Your task to perform on an android device: Add asus zenbook to the cart on newegg Image 0: 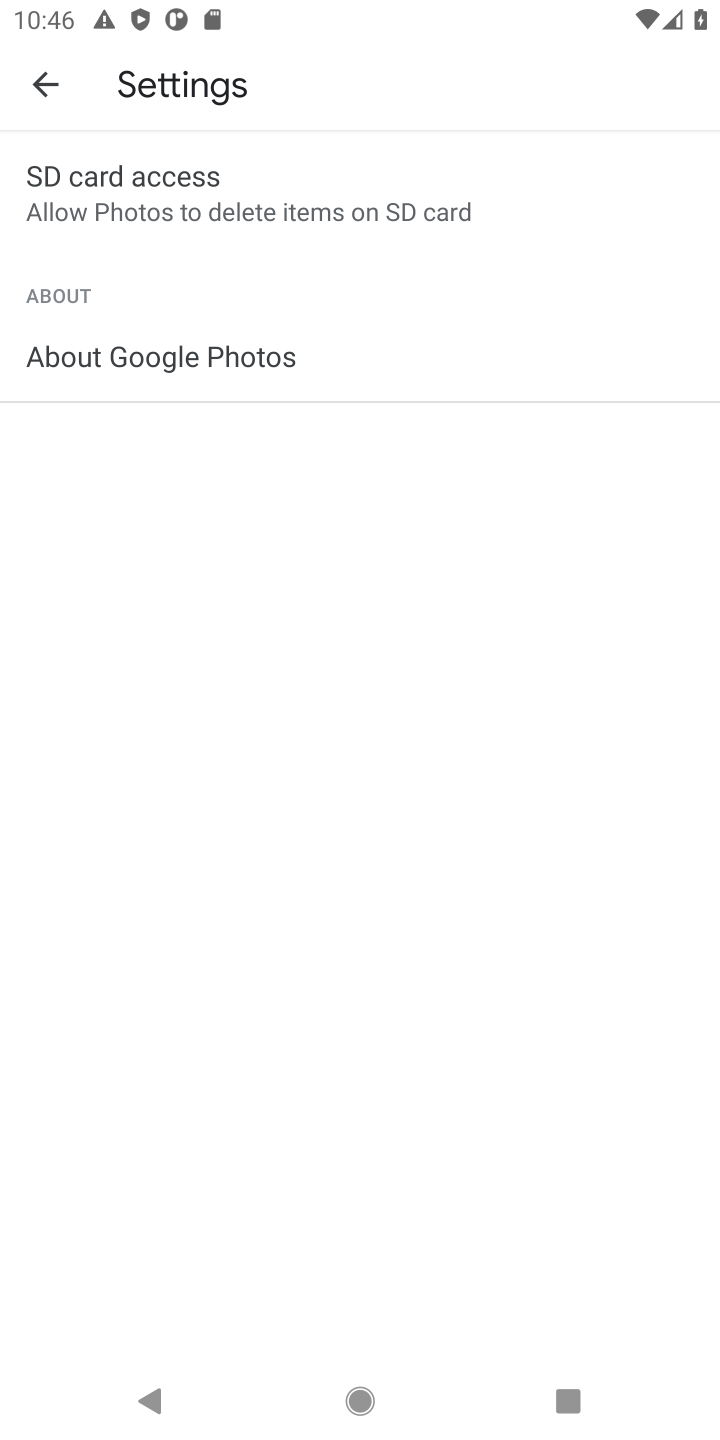
Step 0: press home button
Your task to perform on an android device: Add asus zenbook to the cart on newegg Image 1: 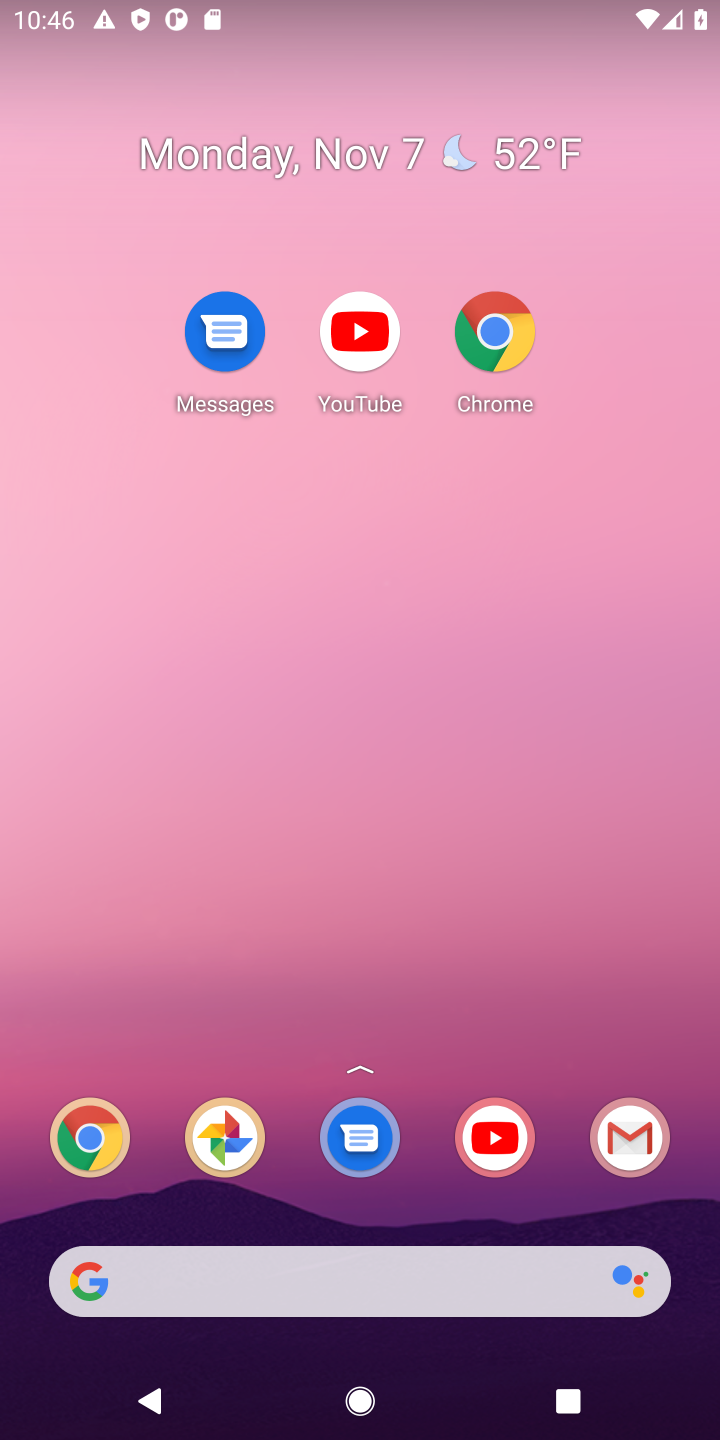
Step 1: drag from (417, 1132) to (372, 108)
Your task to perform on an android device: Add asus zenbook to the cart on newegg Image 2: 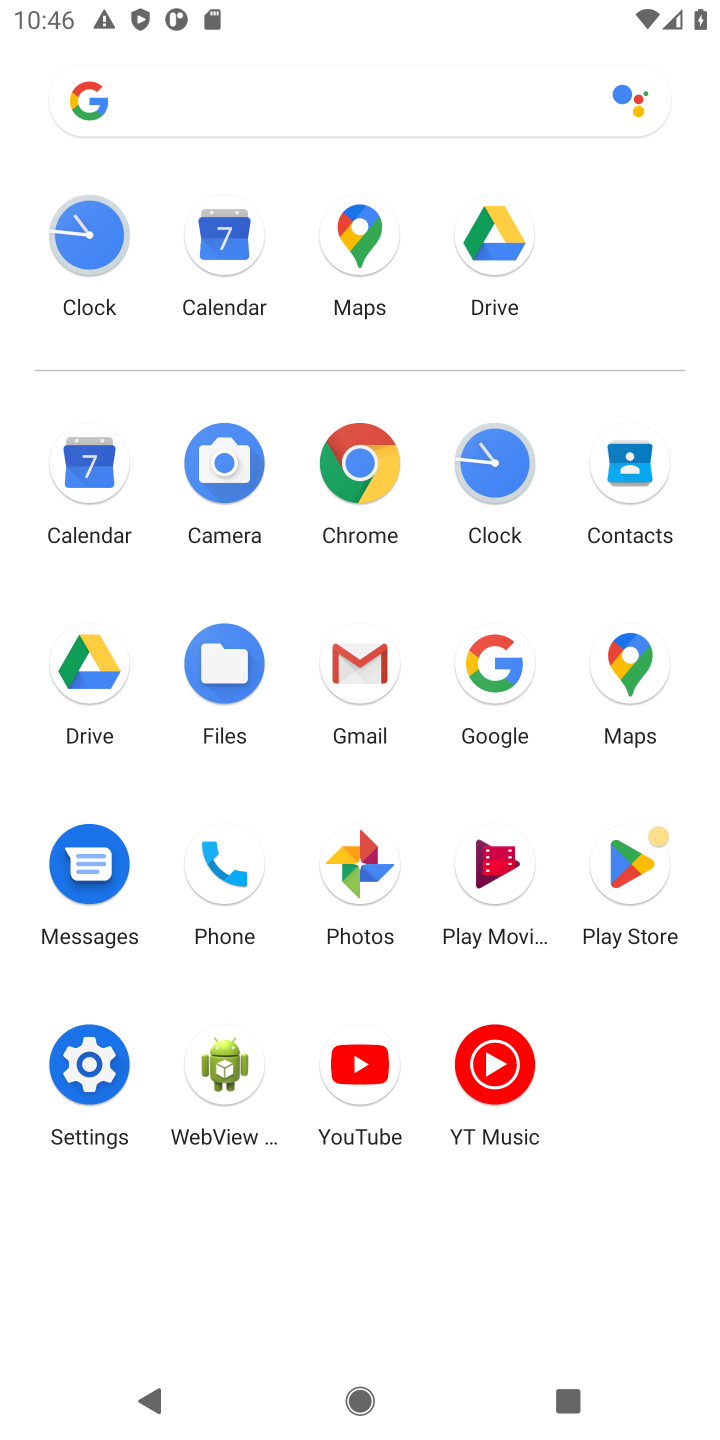
Step 2: click (372, 466)
Your task to perform on an android device: Add asus zenbook to the cart on newegg Image 3: 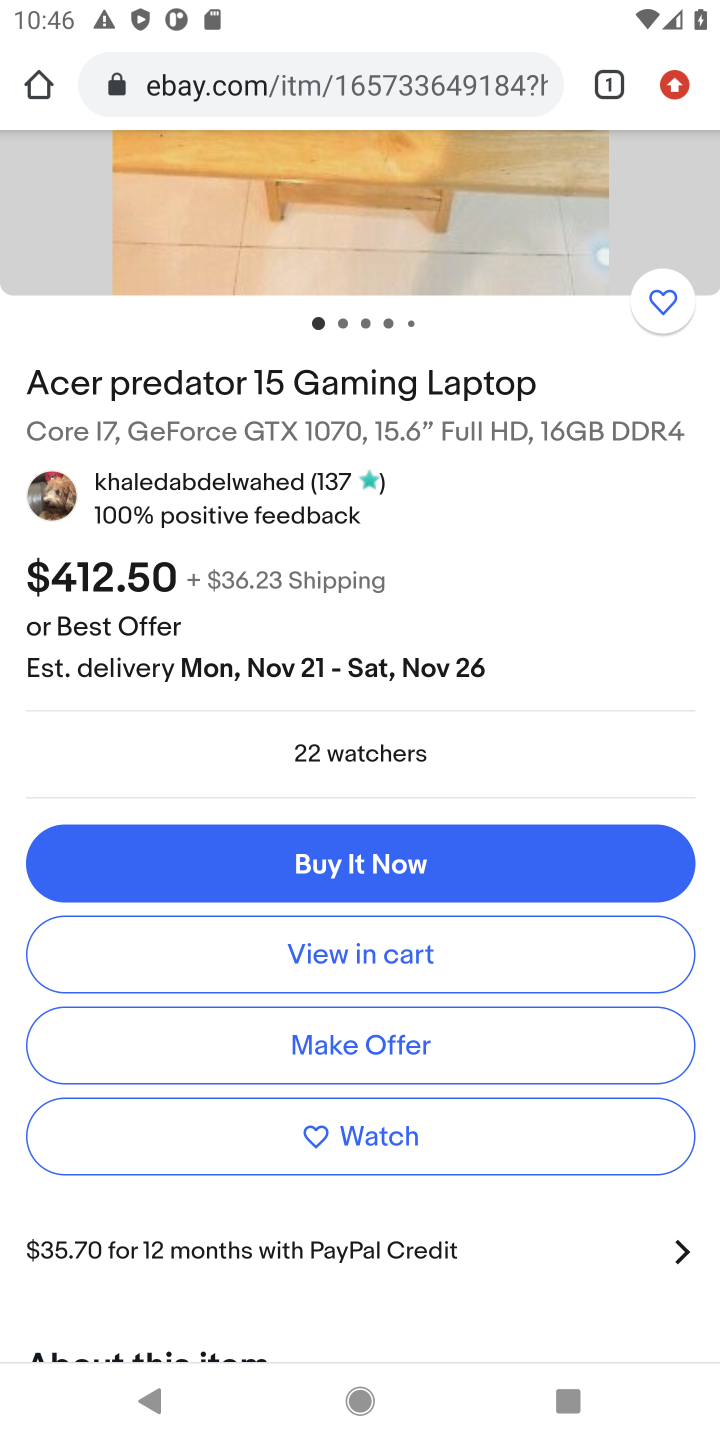
Step 3: click (357, 74)
Your task to perform on an android device: Add asus zenbook to the cart on newegg Image 4: 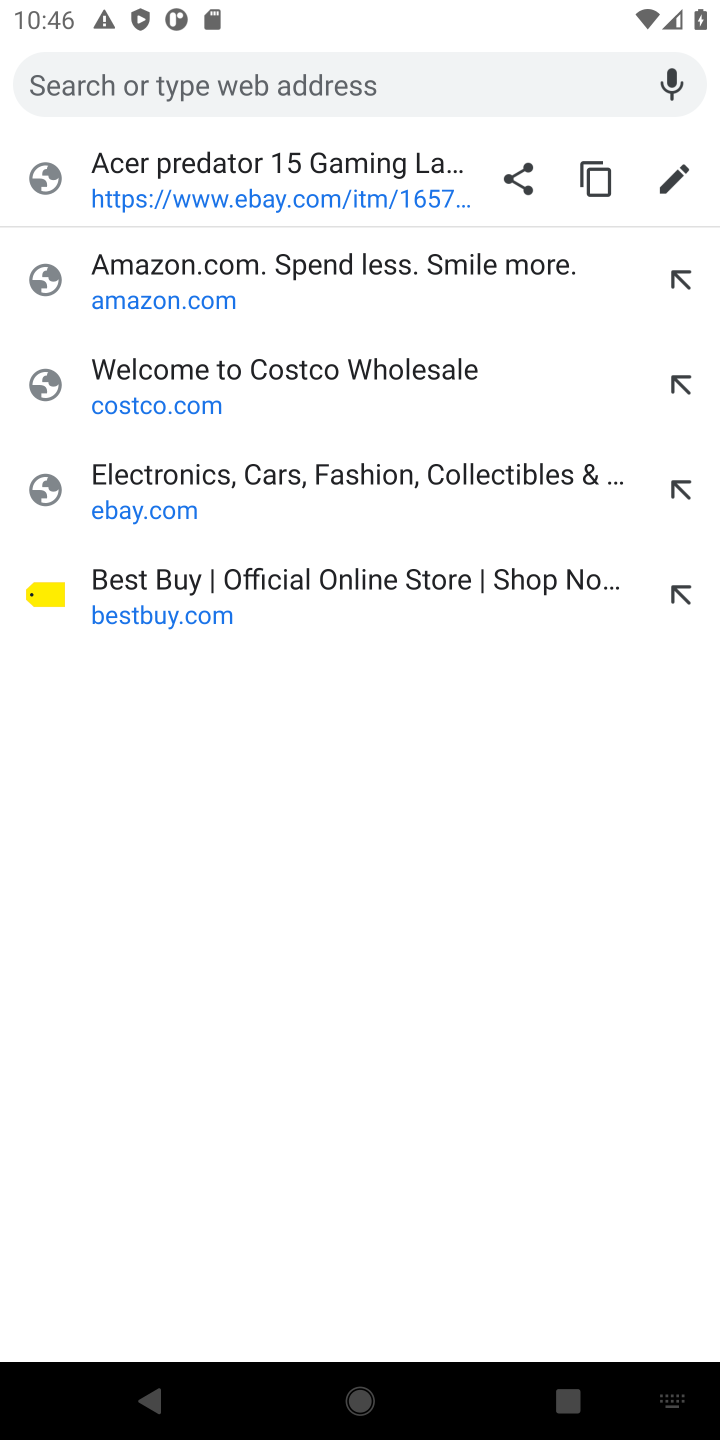
Step 4: type "newegg.com"
Your task to perform on an android device: Add asus zenbook to the cart on newegg Image 5: 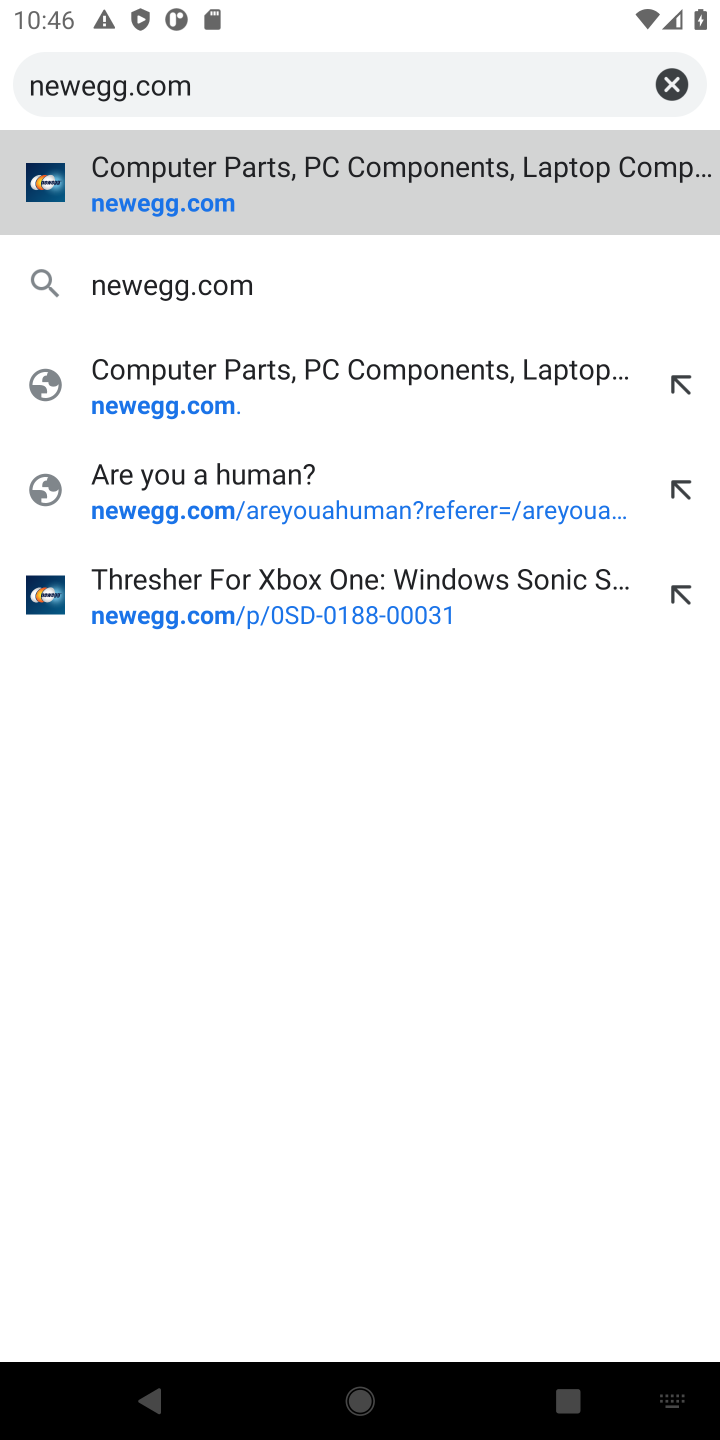
Step 5: press enter
Your task to perform on an android device: Add asus zenbook to the cart on newegg Image 6: 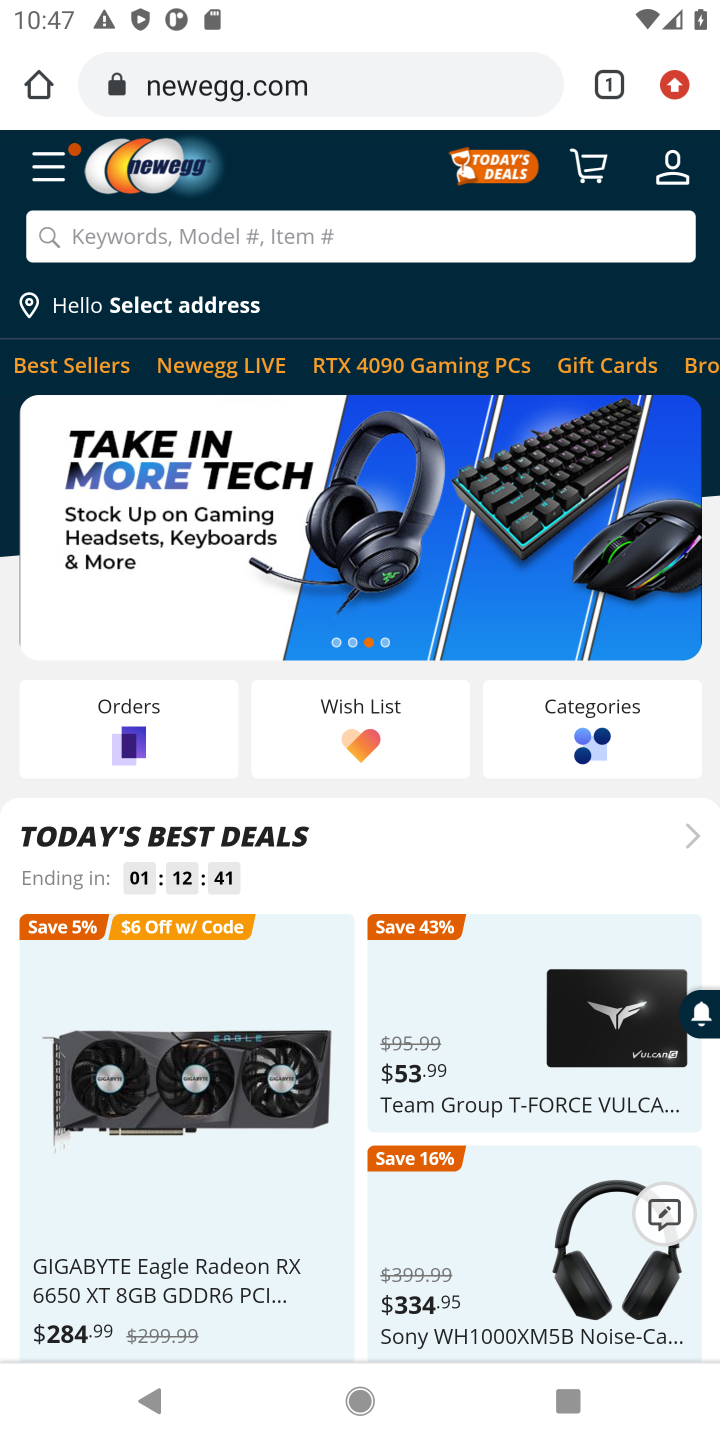
Step 6: click (369, 242)
Your task to perform on an android device: Add asus zenbook to the cart on newegg Image 7: 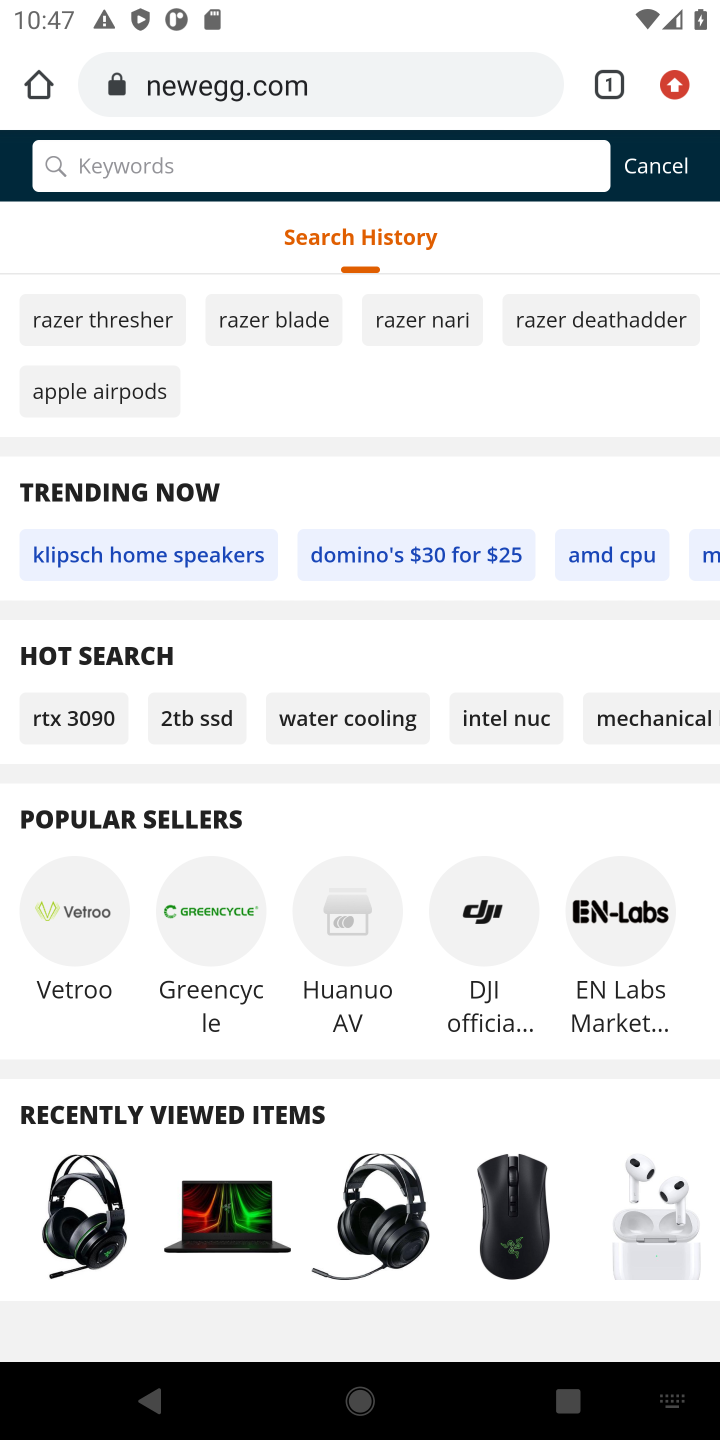
Step 7: type "asus zenbook"
Your task to perform on an android device: Add asus zenbook to the cart on newegg Image 8: 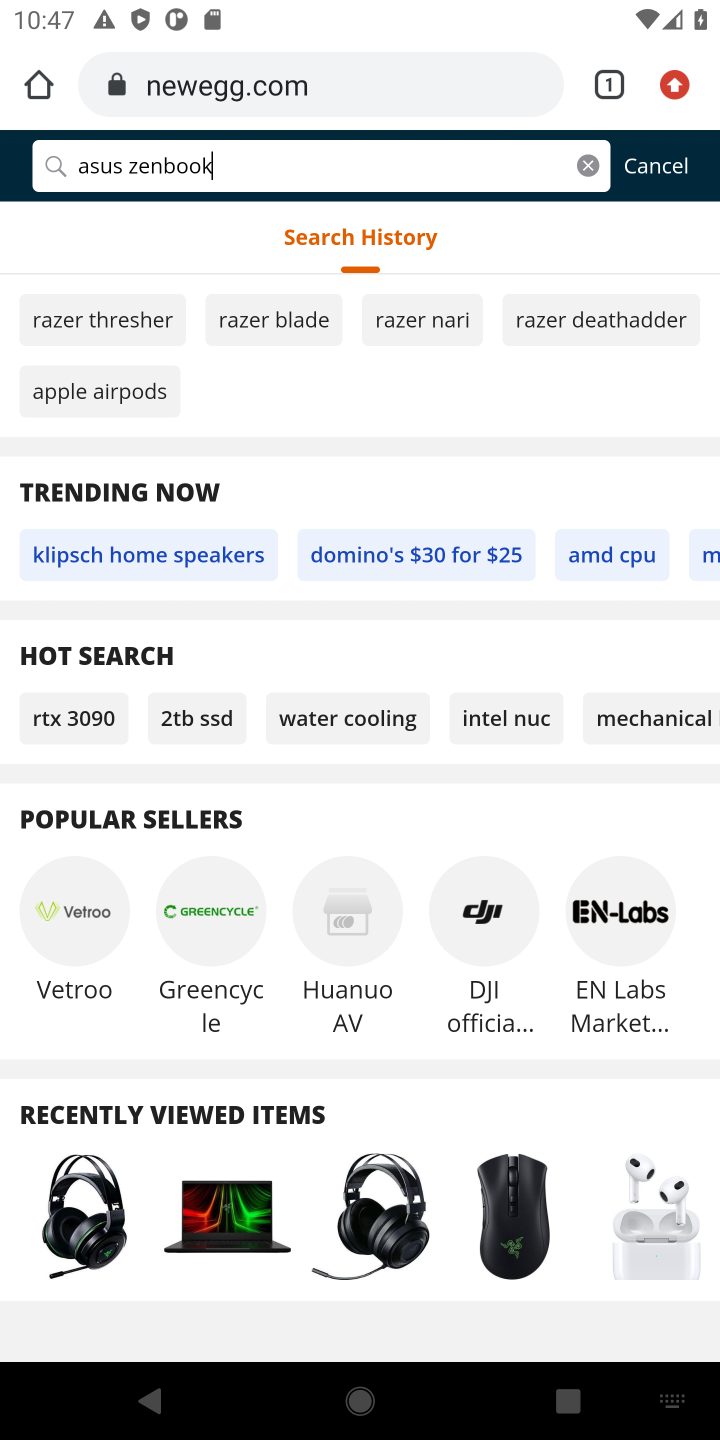
Step 8: press enter
Your task to perform on an android device: Add asus zenbook to the cart on newegg Image 9: 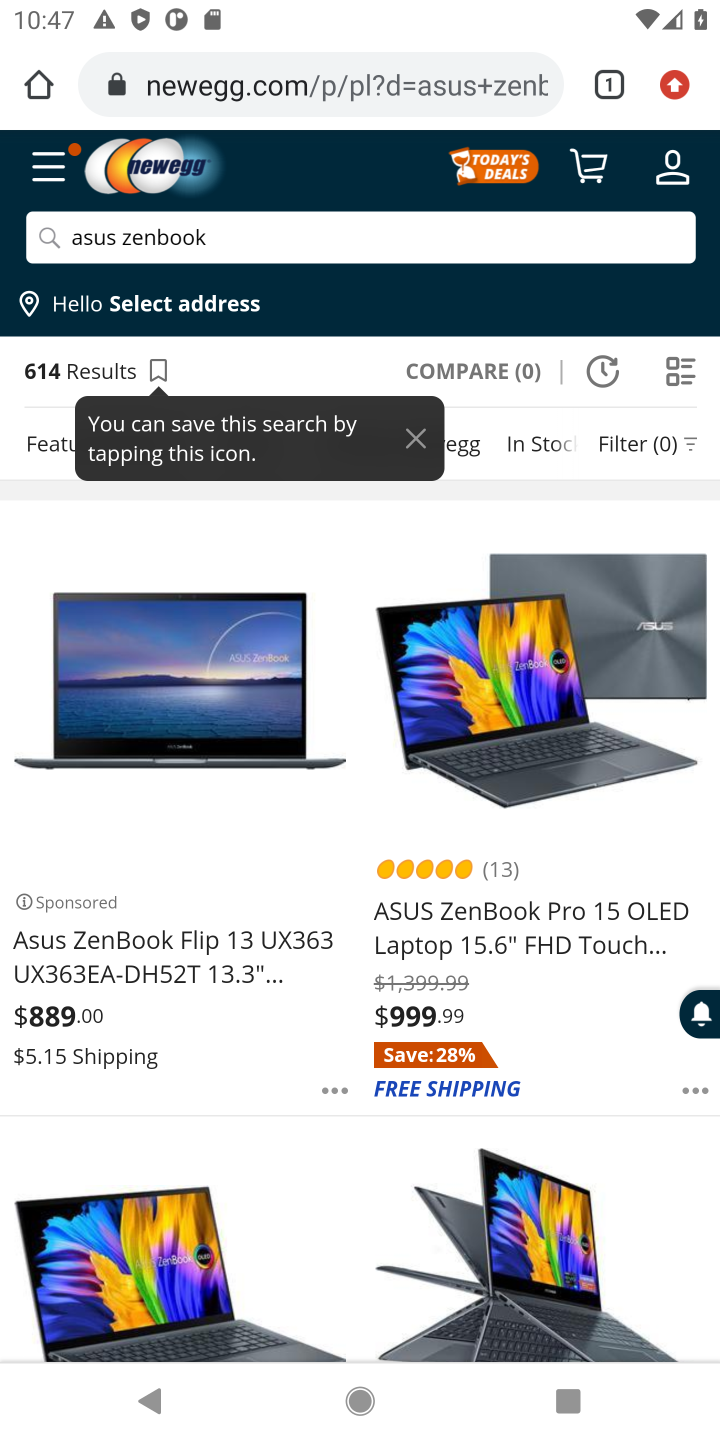
Step 9: click (500, 918)
Your task to perform on an android device: Add asus zenbook to the cart on newegg Image 10: 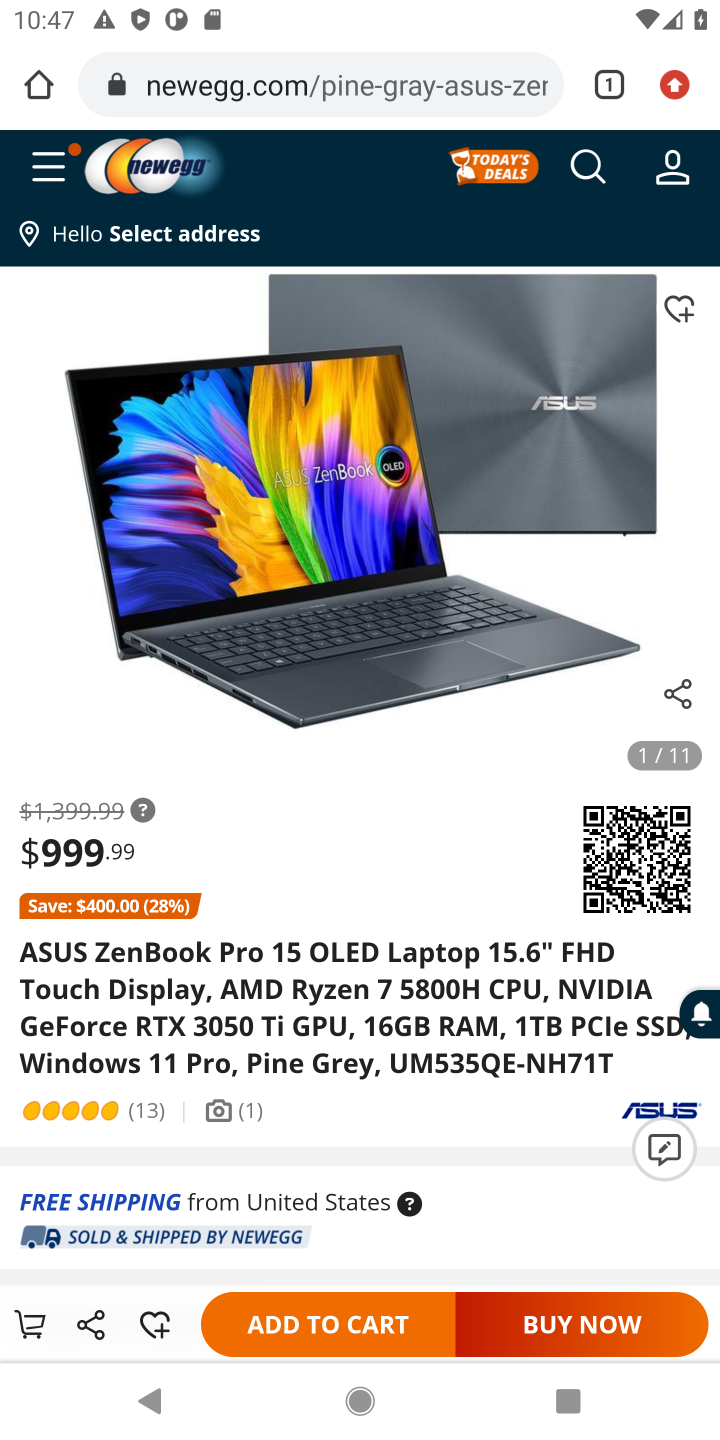
Step 10: click (300, 1315)
Your task to perform on an android device: Add asus zenbook to the cart on newegg Image 11: 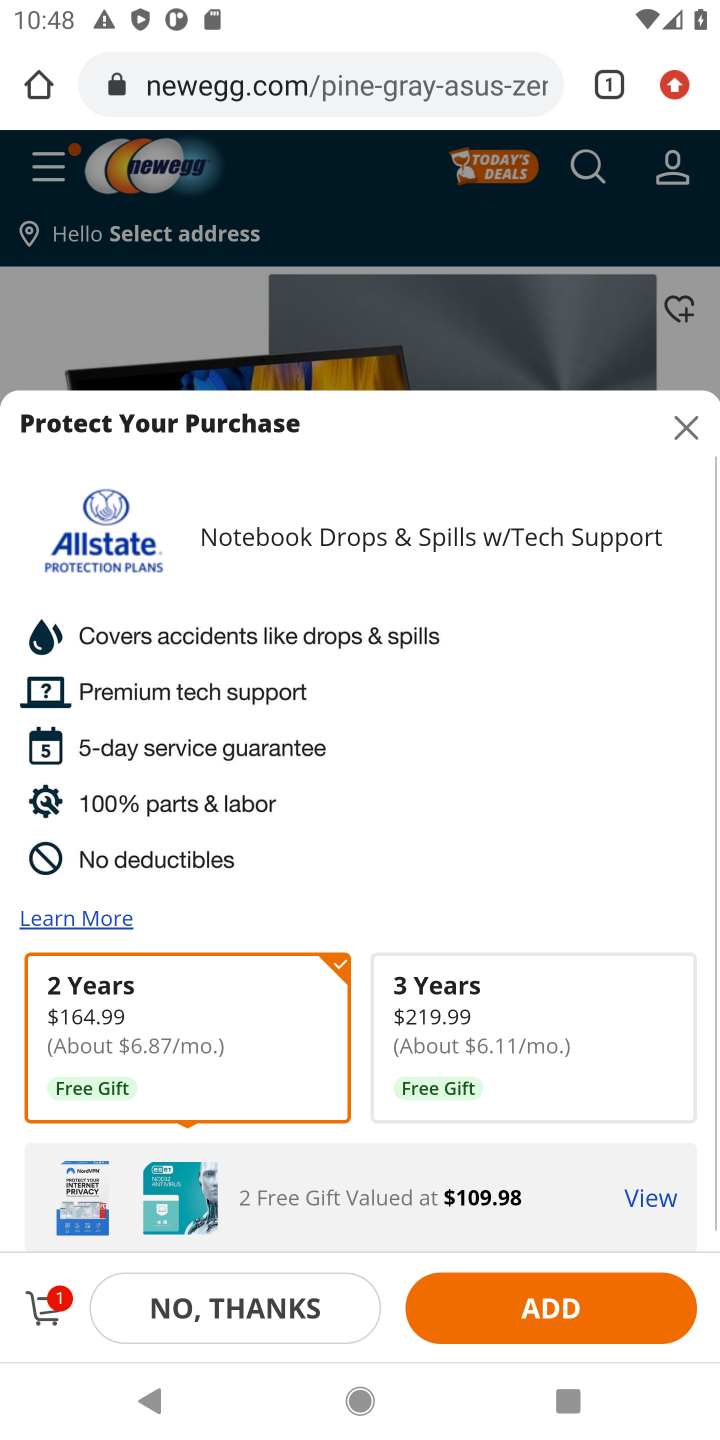
Step 11: task complete